Your task to perform on an android device: Empty the shopping cart on amazon. Search for rayovac triple a on amazon, select the first entry, add it to the cart, then select checkout. Image 0: 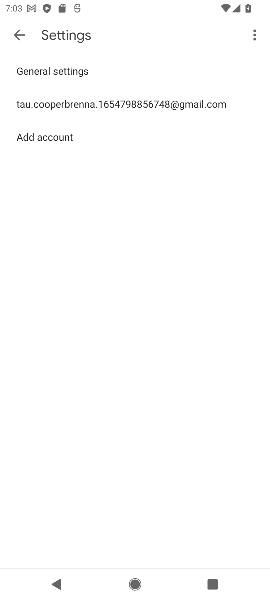
Step 0: press home button
Your task to perform on an android device: Empty the shopping cart on amazon. Search for rayovac triple a on amazon, select the first entry, add it to the cart, then select checkout. Image 1: 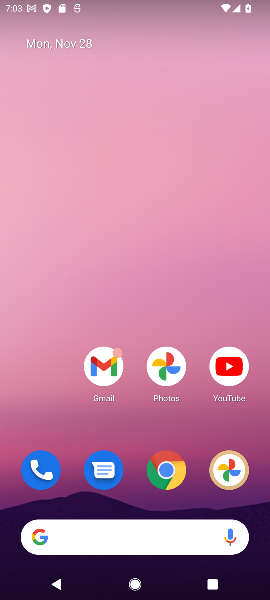
Step 1: click (123, 537)
Your task to perform on an android device: Empty the shopping cart on amazon. Search for rayovac triple a on amazon, select the first entry, add it to the cart, then select checkout. Image 2: 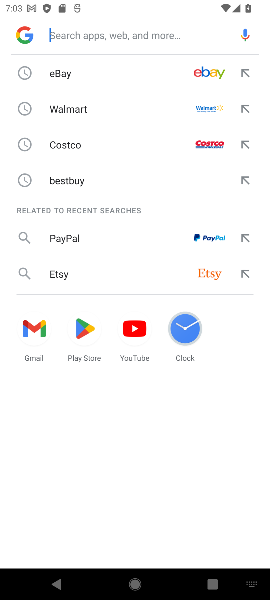
Step 2: type "amazon"
Your task to perform on an android device: Empty the shopping cart on amazon. Search for rayovac triple a on amazon, select the first entry, add it to the cart, then select checkout. Image 3: 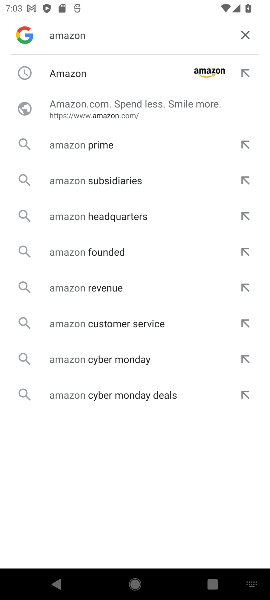
Step 3: click (115, 70)
Your task to perform on an android device: Empty the shopping cart on amazon. Search for rayovac triple a on amazon, select the first entry, add it to the cart, then select checkout. Image 4: 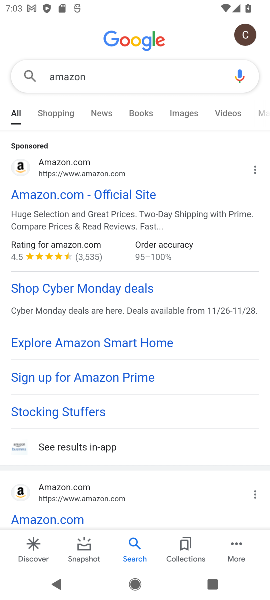
Step 4: click (29, 193)
Your task to perform on an android device: Empty the shopping cart on amazon. Search for rayovac triple a on amazon, select the first entry, add it to the cart, then select checkout. Image 5: 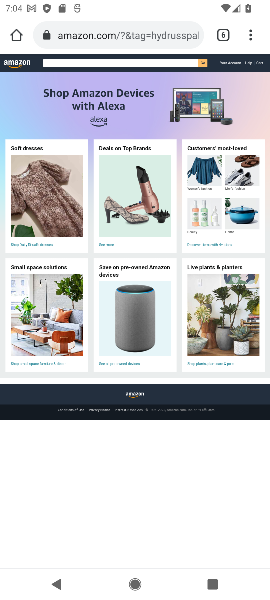
Step 5: drag from (241, 141) to (13, 155)
Your task to perform on an android device: Empty the shopping cart on amazon. Search for rayovac triple a on amazon, select the first entry, add it to the cart, then select checkout. Image 6: 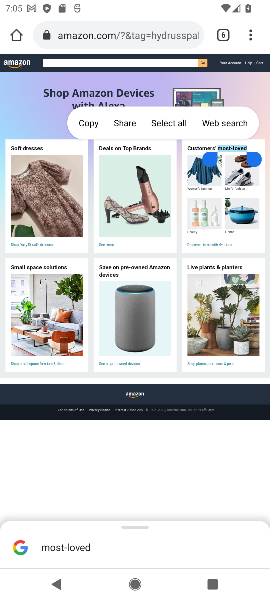
Step 6: press home button
Your task to perform on an android device: Empty the shopping cart on amazon. Search for rayovac triple a on amazon, select the first entry, add it to the cart, then select checkout. Image 7: 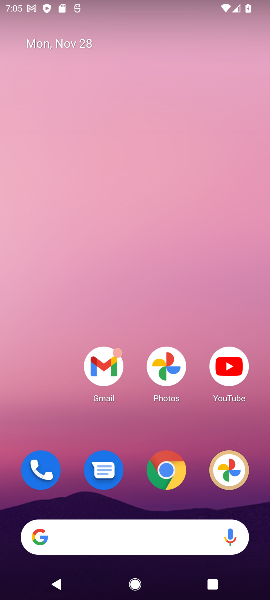
Step 7: click (166, 473)
Your task to perform on an android device: Empty the shopping cart on amazon. Search for rayovac triple a on amazon, select the first entry, add it to the cart, then select checkout. Image 8: 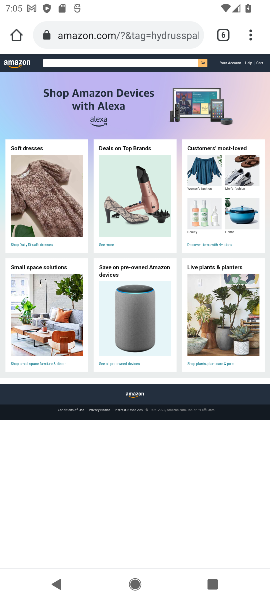
Step 8: click (250, 67)
Your task to perform on an android device: Empty the shopping cart on amazon. Search for rayovac triple a on amazon, select the first entry, add it to the cart, then select checkout. Image 9: 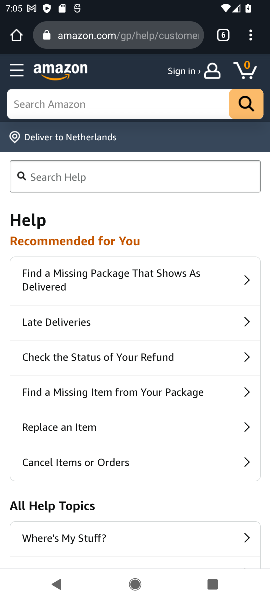
Step 9: click (243, 68)
Your task to perform on an android device: Empty the shopping cart on amazon. Search for rayovac triple a on amazon, select the first entry, add it to the cart, then select checkout. Image 10: 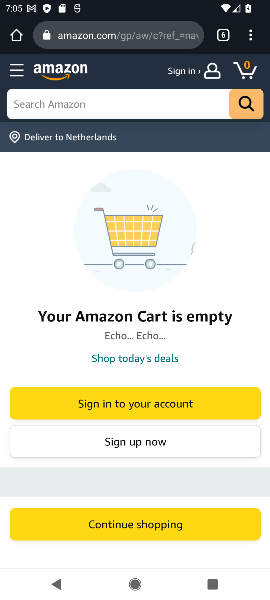
Step 10: click (80, 105)
Your task to perform on an android device: Empty the shopping cart on amazon. Search for rayovac triple a on amazon, select the first entry, add it to the cart, then select checkout. Image 11: 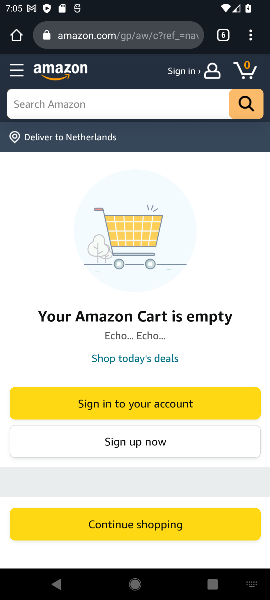
Step 11: type "rayovac triple a"
Your task to perform on an android device: Empty the shopping cart on amazon. Search for rayovac triple a on amazon, select the first entry, add it to the cart, then select checkout. Image 12: 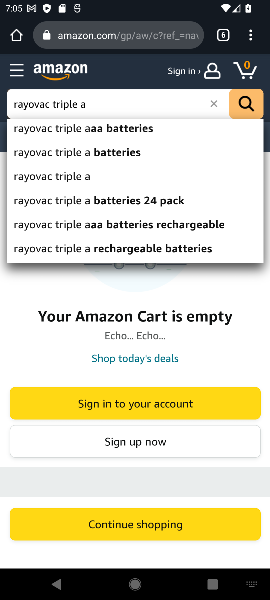
Step 12: click (122, 127)
Your task to perform on an android device: Empty the shopping cart on amazon. Search for rayovac triple a on amazon, select the first entry, add it to the cart, then select checkout. Image 13: 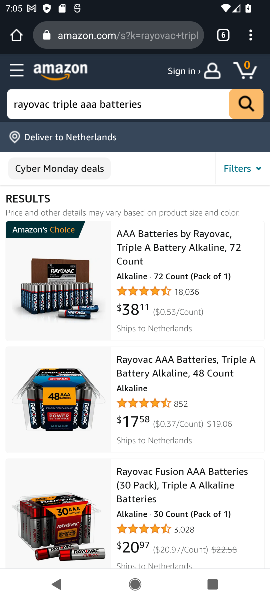
Step 13: click (163, 253)
Your task to perform on an android device: Empty the shopping cart on amazon. Search for rayovac triple a on amazon, select the first entry, add it to the cart, then select checkout. Image 14: 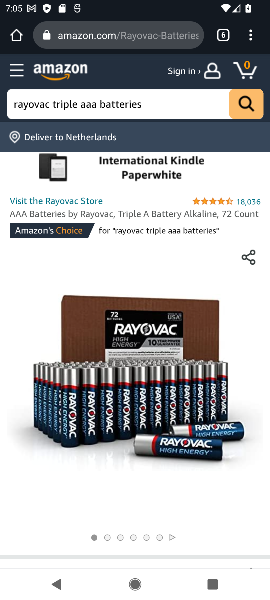
Step 14: drag from (133, 458) to (147, 286)
Your task to perform on an android device: Empty the shopping cart on amazon. Search for rayovac triple a on amazon, select the first entry, add it to the cart, then select checkout. Image 15: 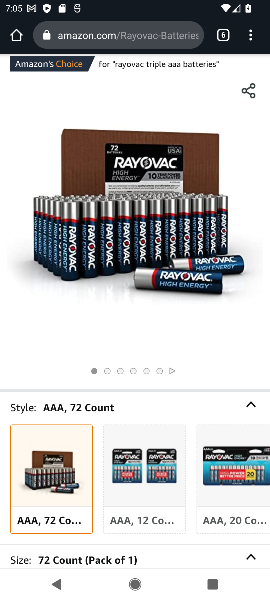
Step 15: drag from (139, 409) to (164, 243)
Your task to perform on an android device: Empty the shopping cart on amazon. Search for rayovac triple a on amazon, select the first entry, add it to the cart, then select checkout. Image 16: 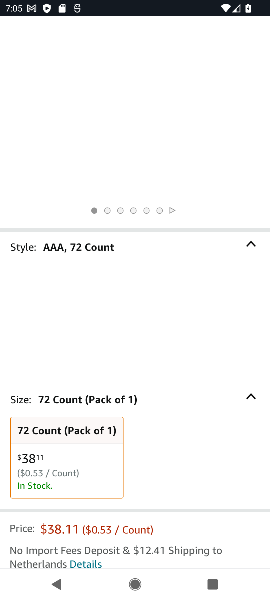
Step 16: click (166, 370)
Your task to perform on an android device: Empty the shopping cart on amazon. Search for rayovac triple a on amazon, select the first entry, add it to the cart, then select checkout. Image 17: 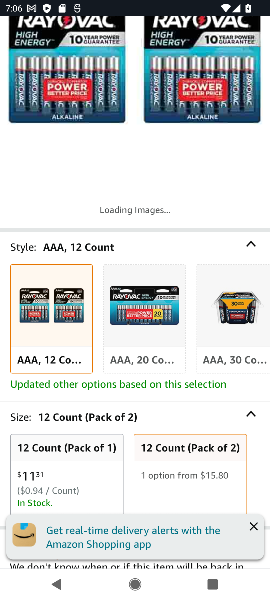
Step 17: drag from (148, 407) to (174, 318)
Your task to perform on an android device: Empty the shopping cart on amazon. Search for rayovac triple a on amazon, select the first entry, add it to the cart, then select checkout. Image 18: 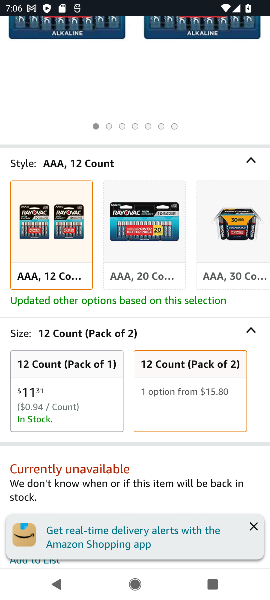
Step 18: drag from (148, 467) to (156, 402)
Your task to perform on an android device: Empty the shopping cart on amazon. Search for rayovac triple a on amazon, select the first entry, add it to the cart, then select checkout. Image 19: 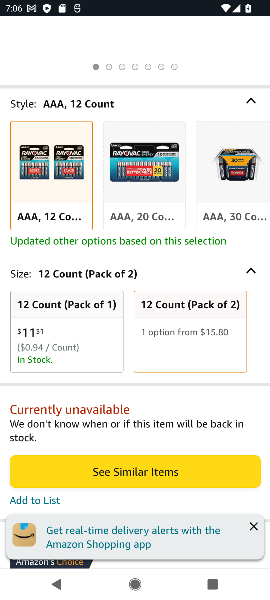
Step 19: drag from (148, 433) to (148, 404)
Your task to perform on an android device: Empty the shopping cart on amazon. Search for rayovac triple a on amazon, select the first entry, add it to the cart, then select checkout. Image 20: 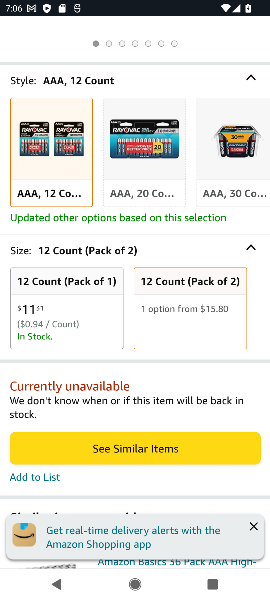
Step 20: click (134, 452)
Your task to perform on an android device: Empty the shopping cart on amazon. Search for rayovac triple a on amazon, select the first entry, add it to the cart, then select checkout. Image 21: 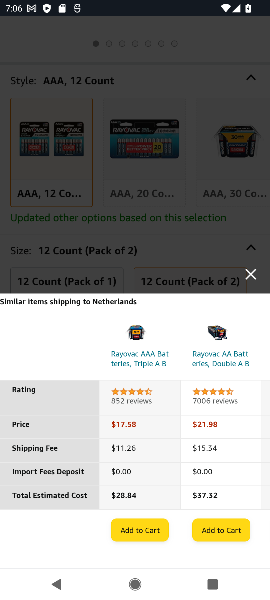
Step 21: click (134, 535)
Your task to perform on an android device: Empty the shopping cart on amazon. Search for rayovac triple a on amazon, select the first entry, add it to the cart, then select checkout. Image 22: 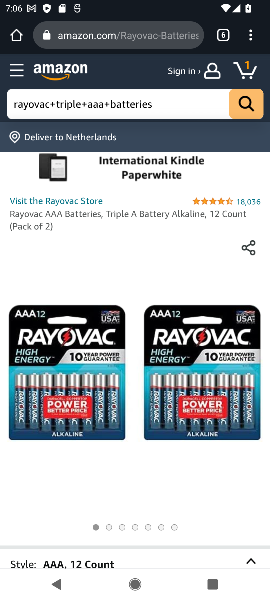
Step 22: click (249, 69)
Your task to perform on an android device: Empty the shopping cart on amazon. Search for rayovac triple a on amazon, select the first entry, add it to the cart, then select checkout. Image 23: 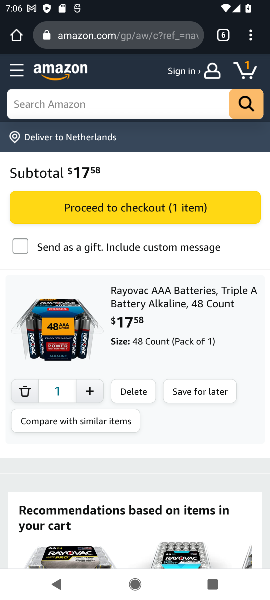
Step 23: click (129, 204)
Your task to perform on an android device: Empty the shopping cart on amazon. Search for rayovac triple a on amazon, select the first entry, add it to the cart, then select checkout. Image 24: 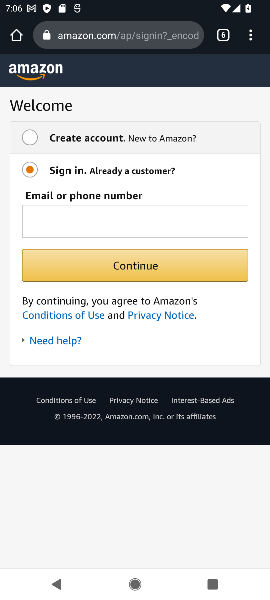
Step 24: task complete